Your task to perform on an android device: check out phone information Image 0: 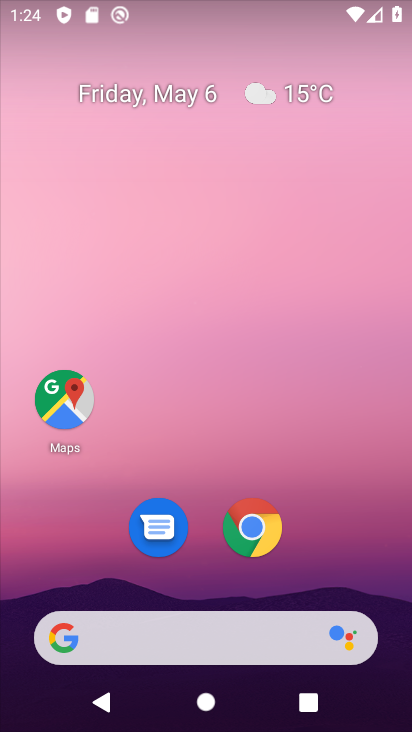
Step 0: drag from (156, 583) to (253, 71)
Your task to perform on an android device: check out phone information Image 1: 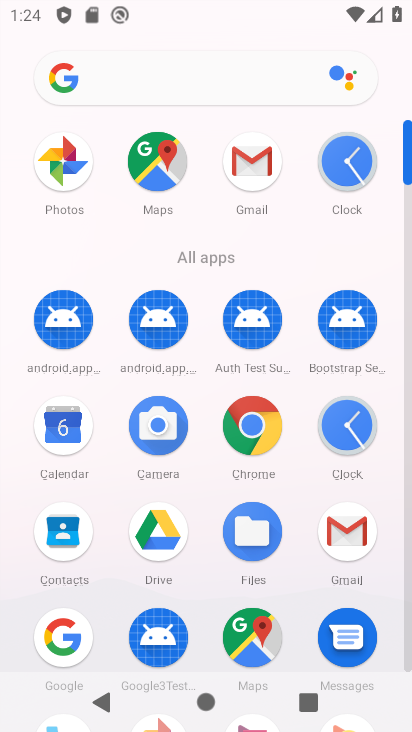
Step 1: drag from (122, 650) to (263, 35)
Your task to perform on an android device: check out phone information Image 2: 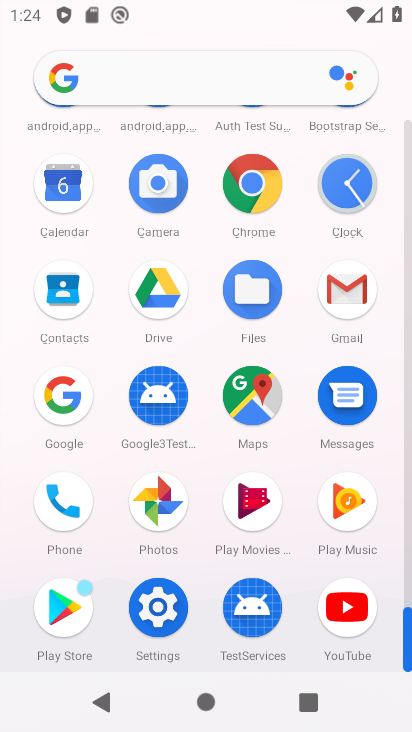
Step 2: click (153, 637)
Your task to perform on an android device: check out phone information Image 3: 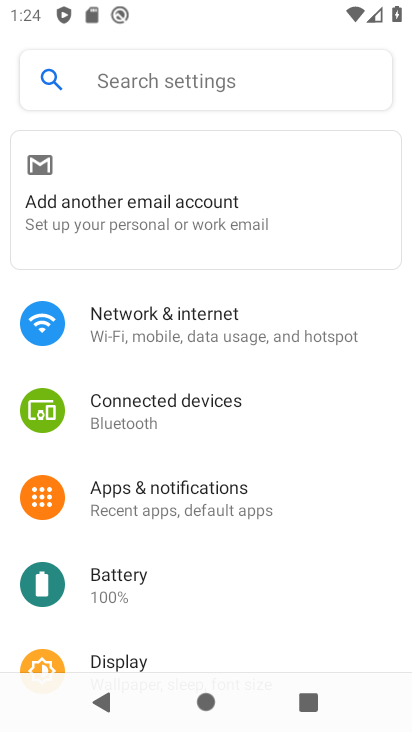
Step 3: drag from (125, 621) to (348, 275)
Your task to perform on an android device: check out phone information Image 4: 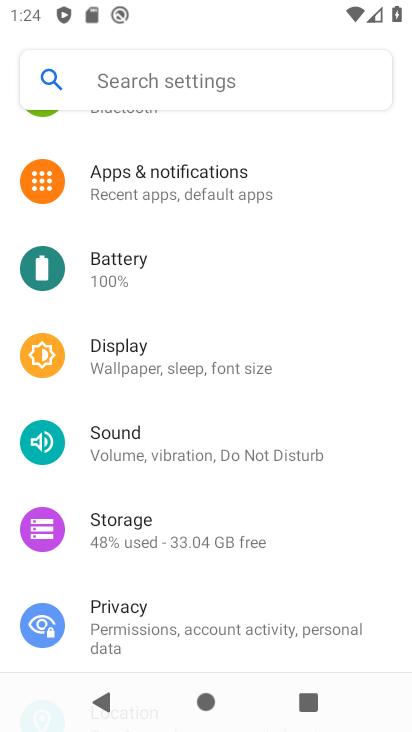
Step 4: drag from (83, 651) to (188, 3)
Your task to perform on an android device: check out phone information Image 5: 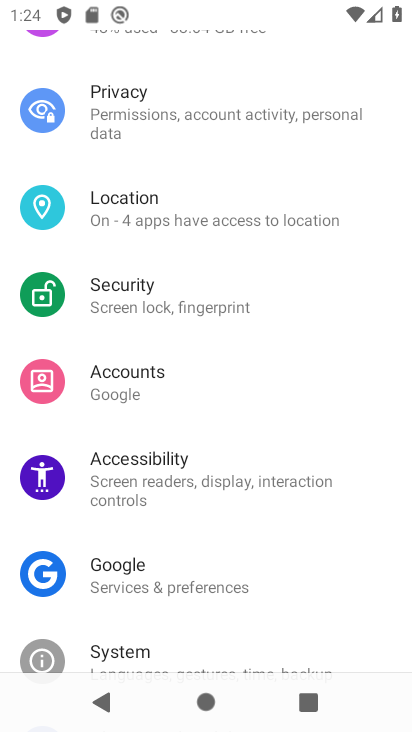
Step 5: drag from (189, 610) to (191, 157)
Your task to perform on an android device: check out phone information Image 6: 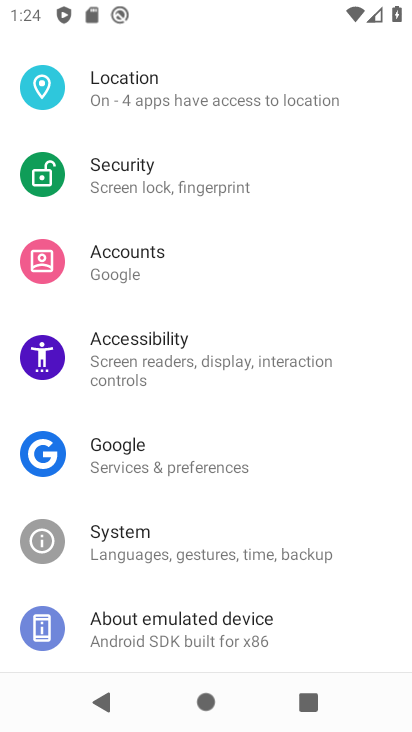
Step 6: click (139, 612)
Your task to perform on an android device: check out phone information Image 7: 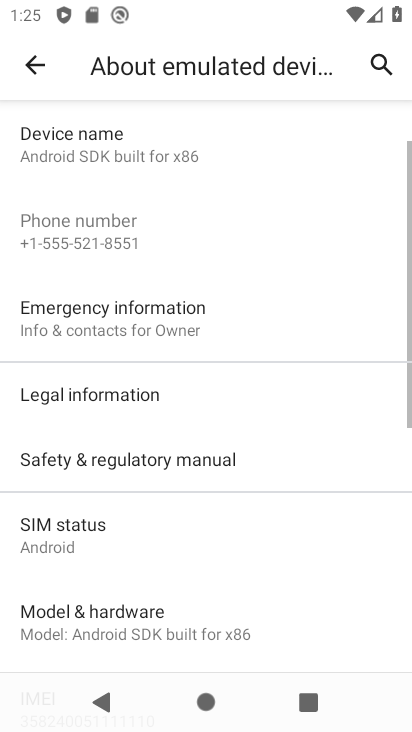
Step 7: task complete